Your task to perform on an android device: Add "logitech g933" to the cart on target.com, then select checkout. Image 0: 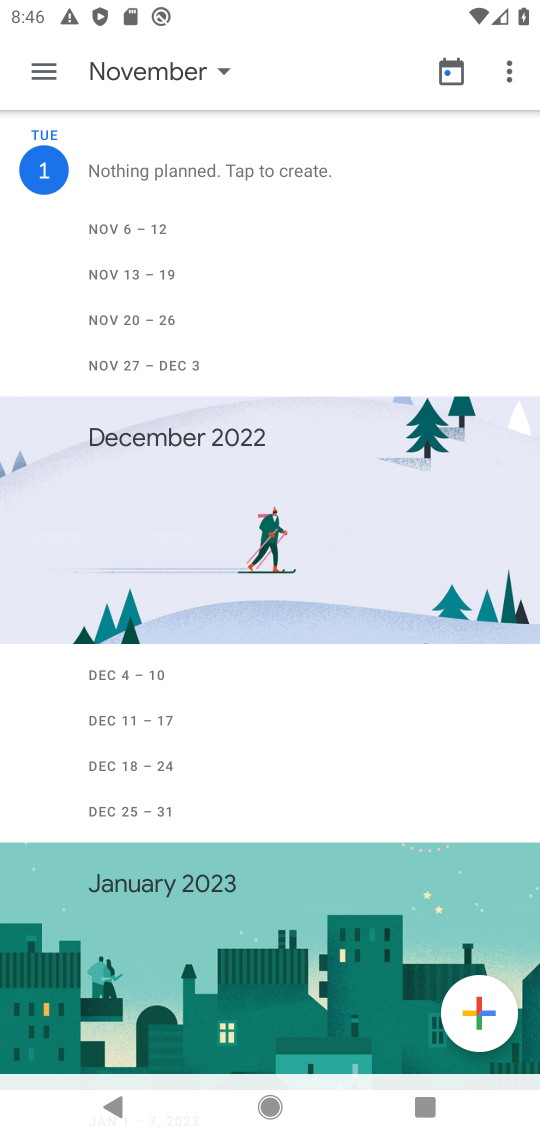
Step 0: press home button
Your task to perform on an android device: Add "logitech g933" to the cart on target.com, then select checkout. Image 1: 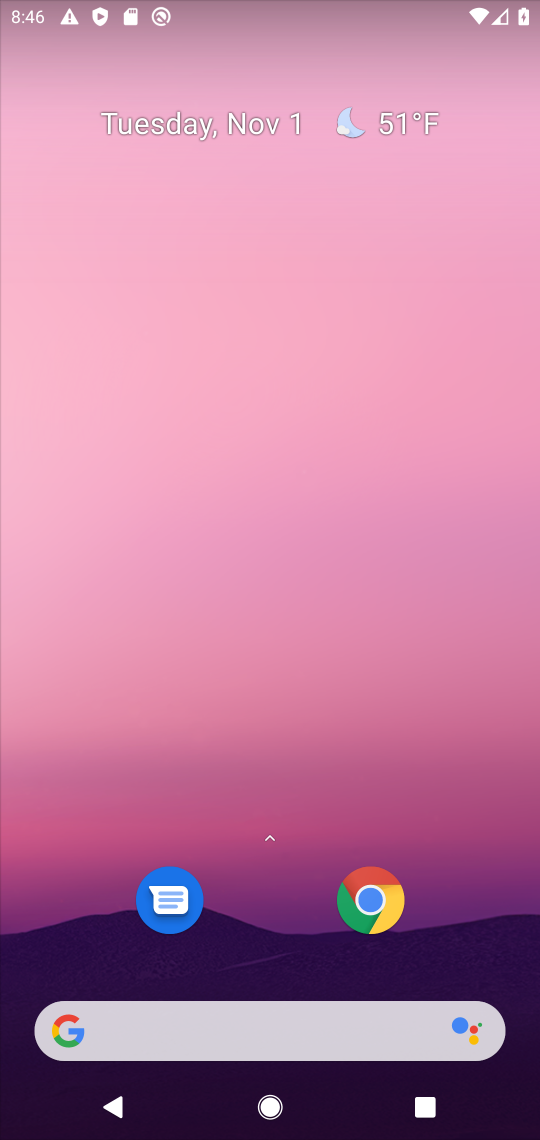
Step 1: drag from (330, 1077) to (181, 8)
Your task to perform on an android device: Add "logitech g933" to the cart on target.com, then select checkout. Image 2: 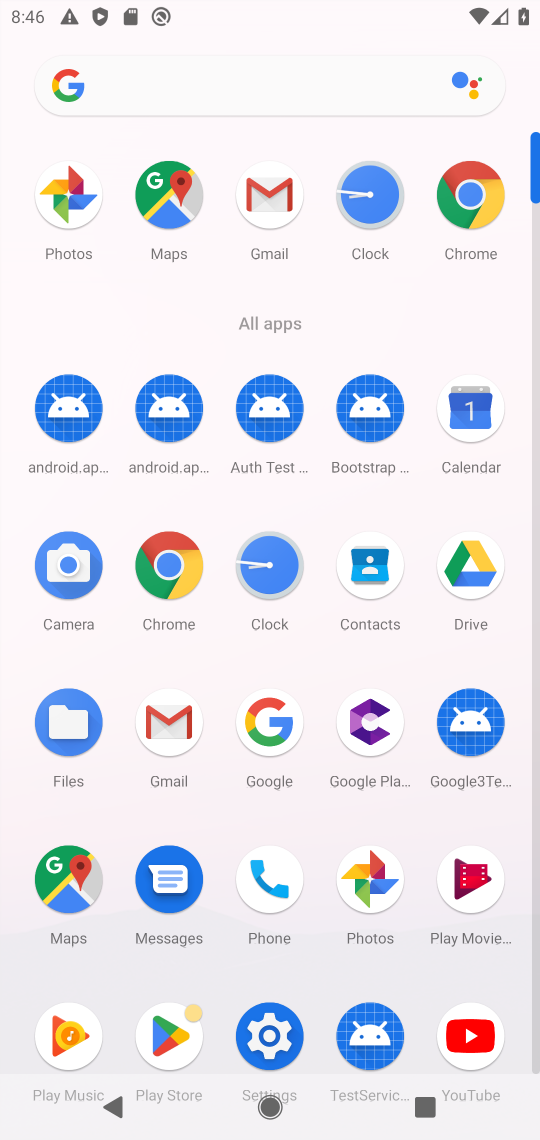
Step 2: click (167, 567)
Your task to perform on an android device: Add "logitech g933" to the cart on target.com, then select checkout. Image 3: 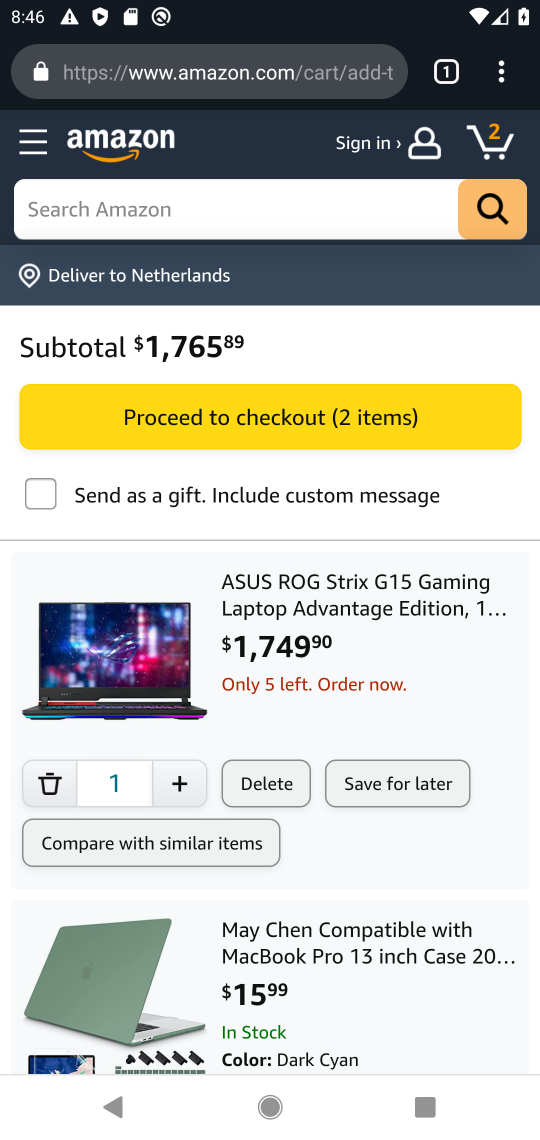
Step 3: click (150, 60)
Your task to perform on an android device: Add "logitech g933" to the cart on target.com, then select checkout. Image 4: 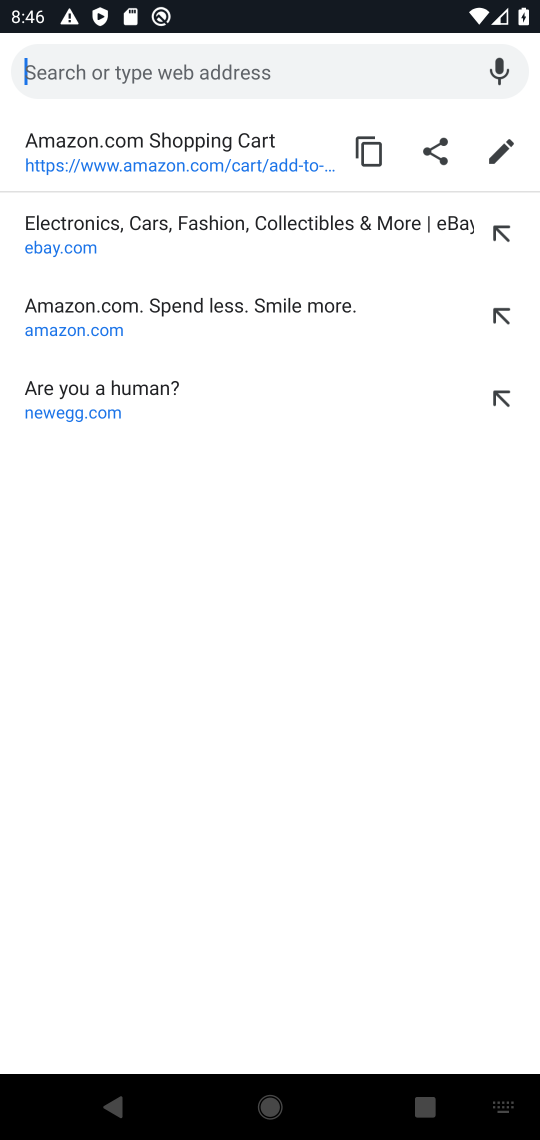
Step 4: type "target.com"
Your task to perform on an android device: Add "logitech g933" to the cart on target.com, then select checkout. Image 5: 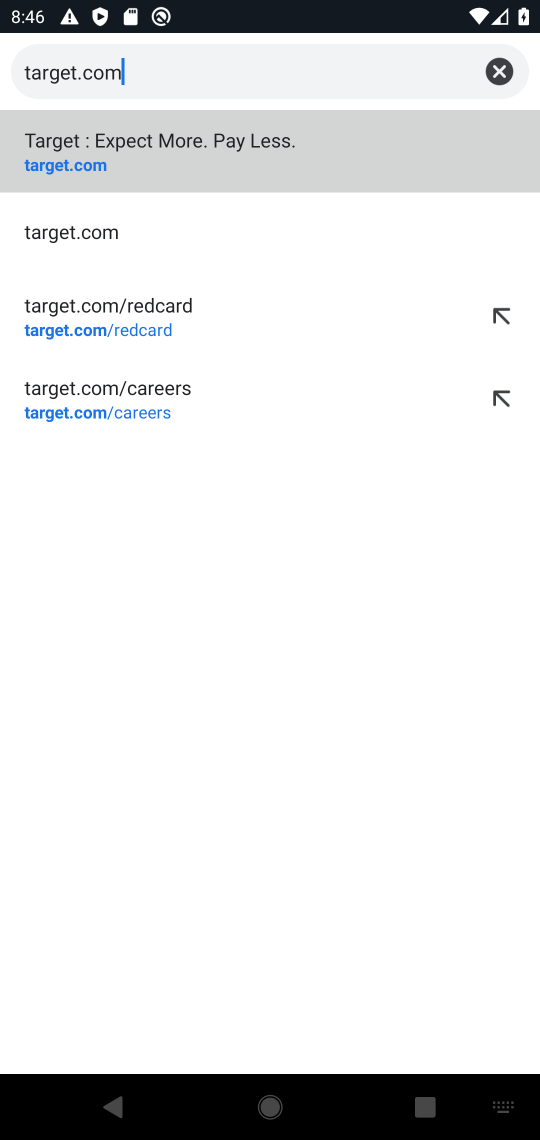
Step 5: click (33, 161)
Your task to perform on an android device: Add "logitech g933" to the cart on target.com, then select checkout. Image 6: 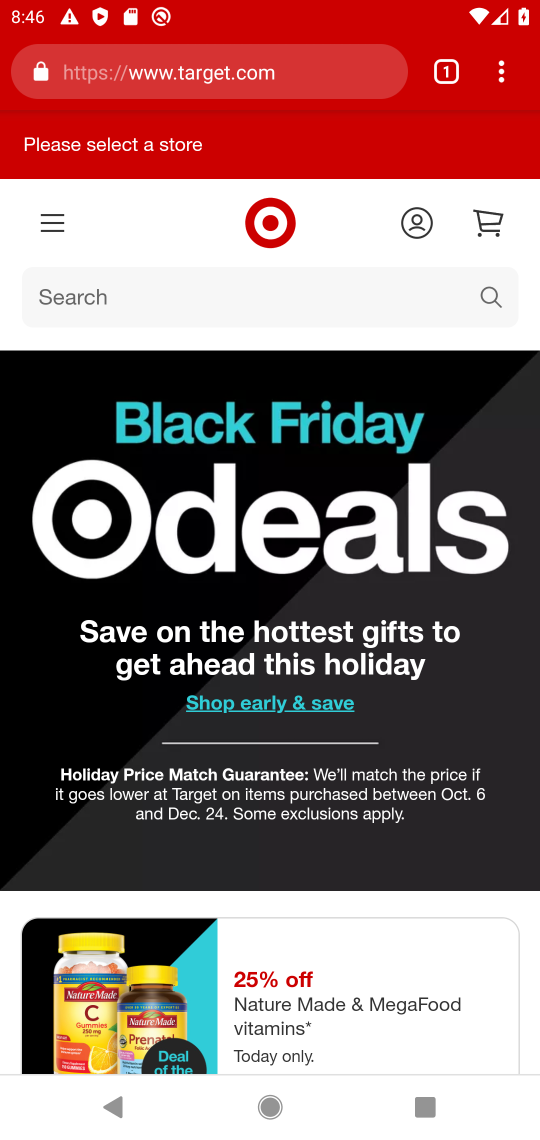
Step 6: click (412, 283)
Your task to perform on an android device: Add "logitech g933" to the cart on target.com, then select checkout. Image 7: 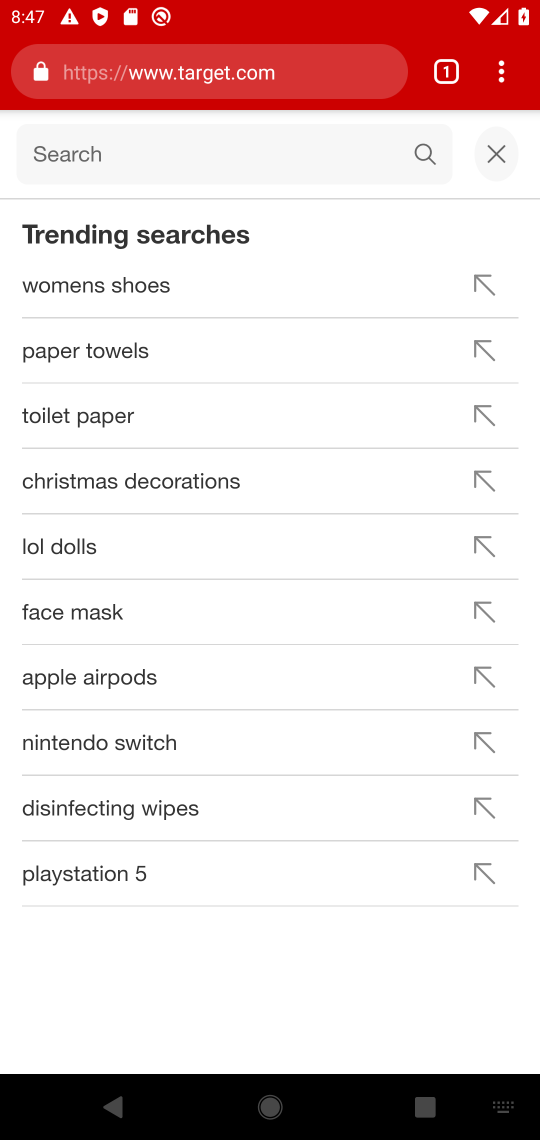
Step 7: type "logitech g933"
Your task to perform on an android device: Add "logitech g933" to the cart on target.com, then select checkout. Image 8: 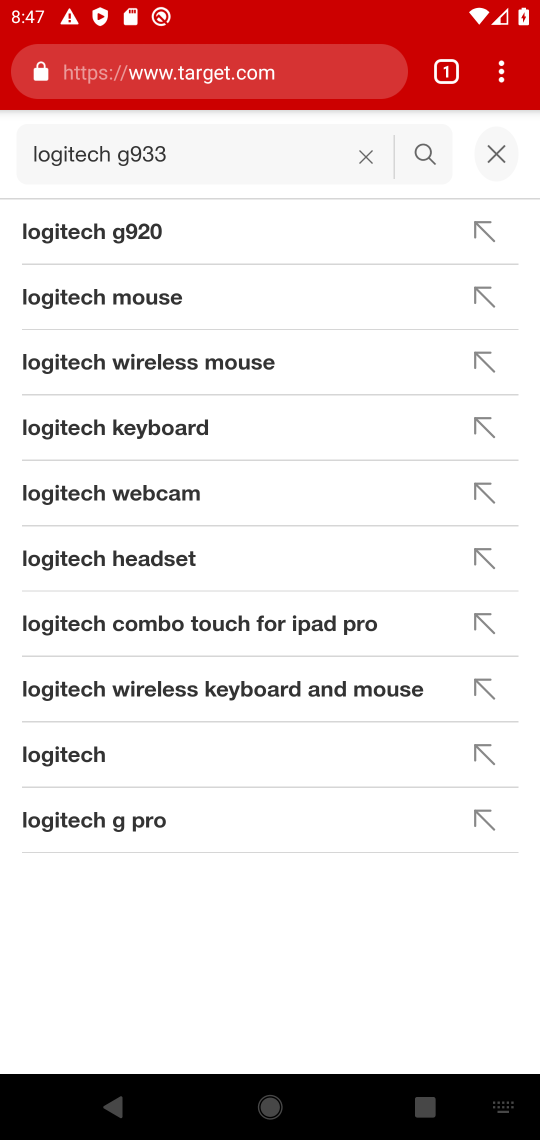
Step 8: click (417, 146)
Your task to perform on an android device: Add "logitech g933" to the cart on target.com, then select checkout. Image 9: 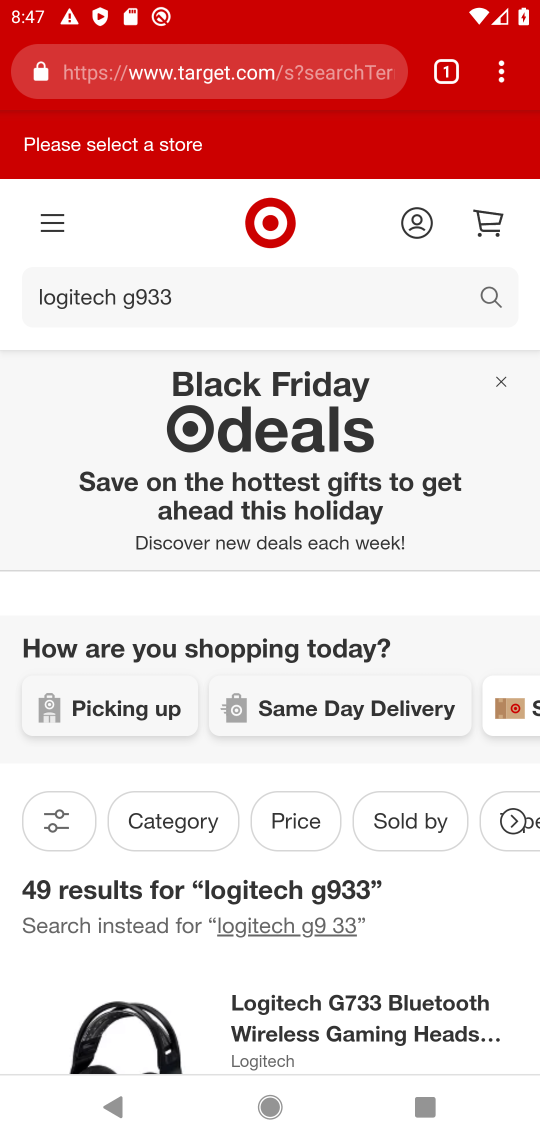
Step 9: drag from (290, 904) to (316, 288)
Your task to perform on an android device: Add "logitech g933" to the cart on target.com, then select checkout. Image 10: 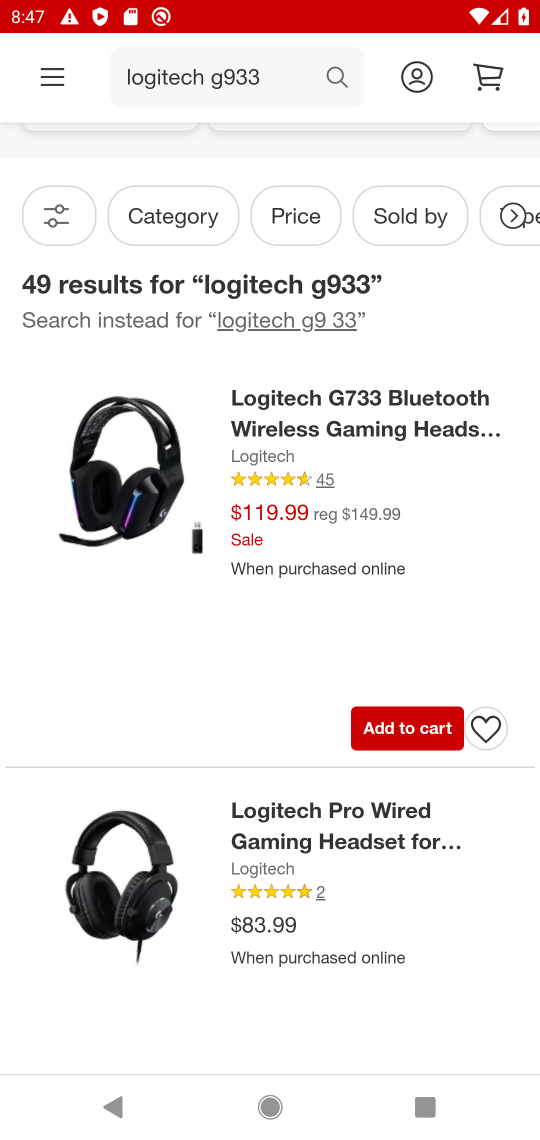
Step 10: click (408, 728)
Your task to perform on an android device: Add "logitech g933" to the cart on target.com, then select checkout. Image 11: 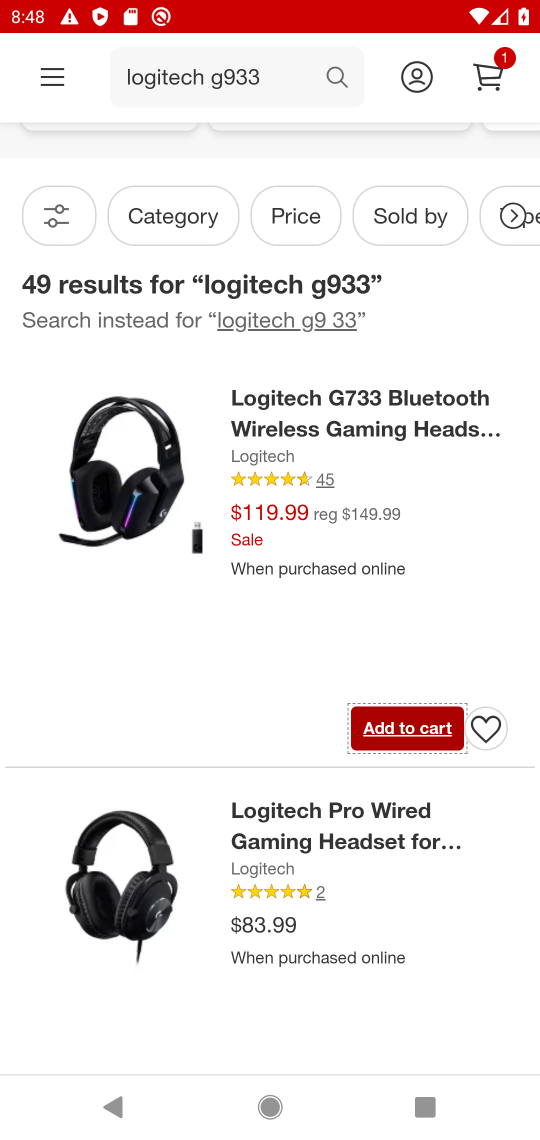
Step 11: task complete